Your task to perform on an android device: clear history in the chrome app Image 0: 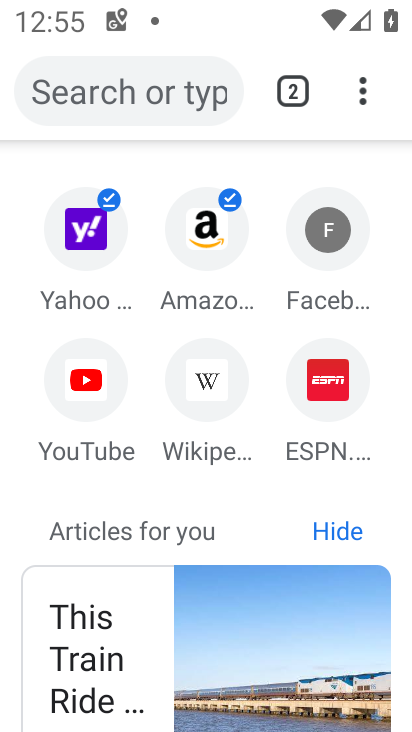
Step 0: drag from (367, 96) to (125, 519)
Your task to perform on an android device: clear history in the chrome app Image 1: 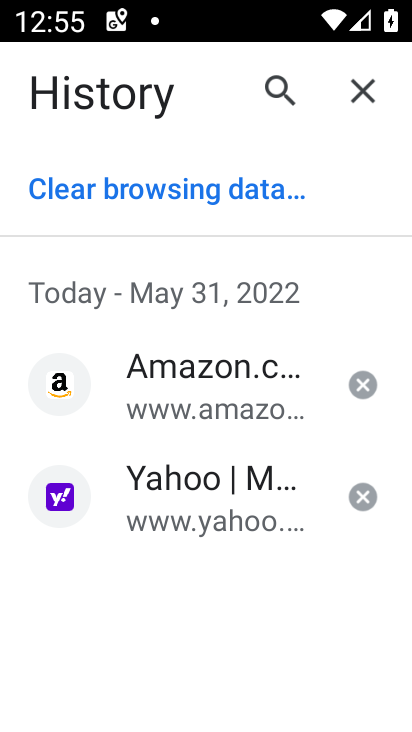
Step 1: click (156, 195)
Your task to perform on an android device: clear history in the chrome app Image 2: 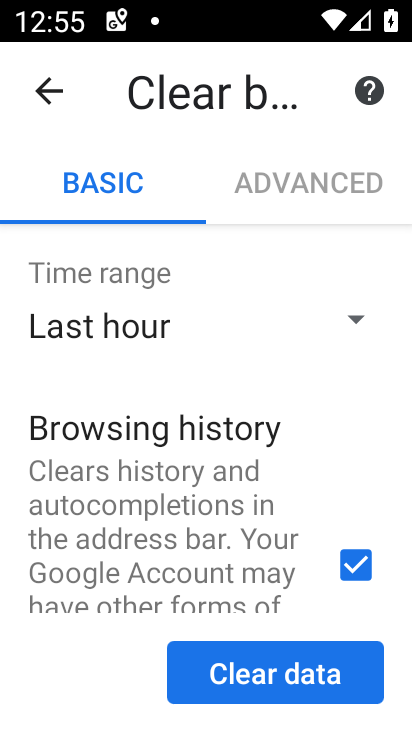
Step 2: click (271, 666)
Your task to perform on an android device: clear history in the chrome app Image 3: 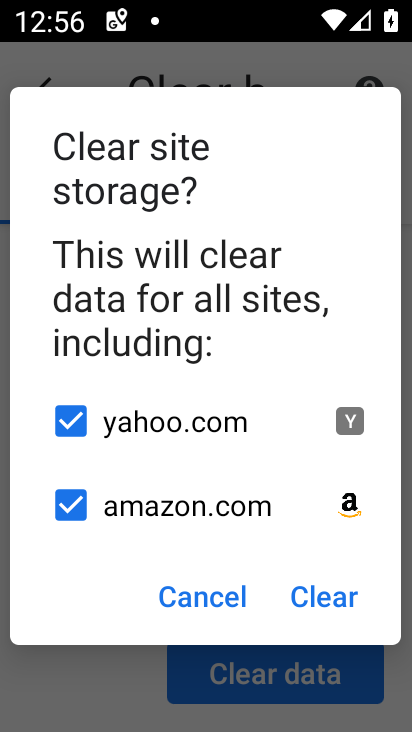
Step 3: click (325, 599)
Your task to perform on an android device: clear history in the chrome app Image 4: 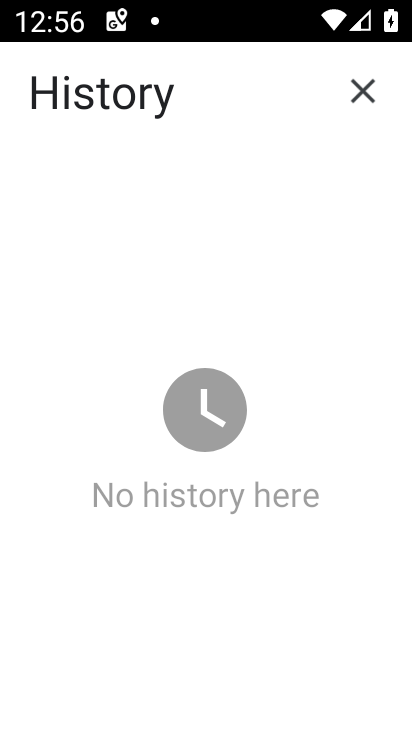
Step 4: task complete